Your task to perform on an android device: open chrome and create a bookmark for the current page Image 0: 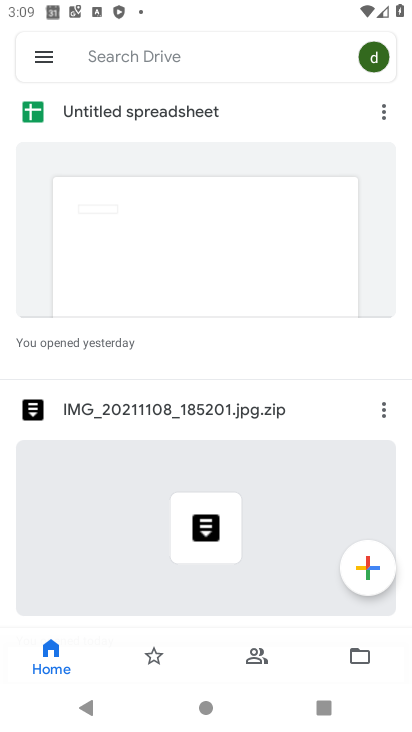
Step 0: press home button
Your task to perform on an android device: open chrome and create a bookmark for the current page Image 1: 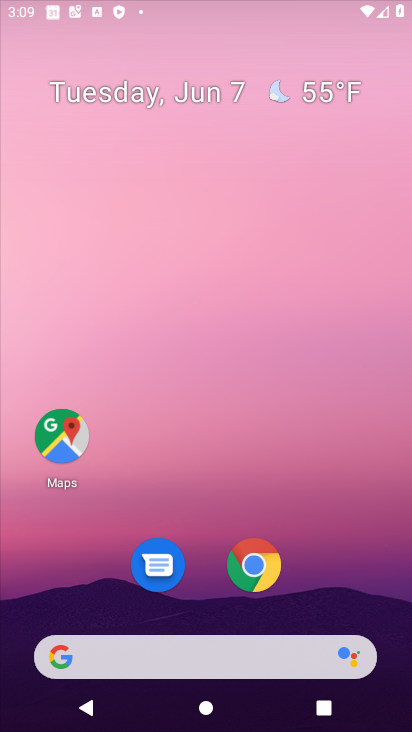
Step 1: drag from (285, 645) to (313, 147)
Your task to perform on an android device: open chrome and create a bookmark for the current page Image 2: 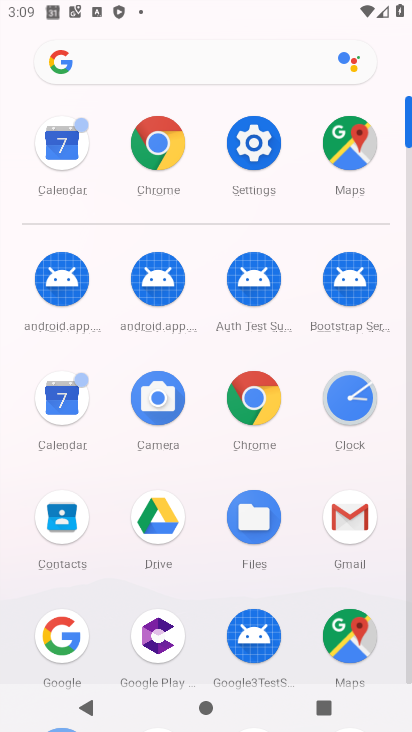
Step 2: click (248, 389)
Your task to perform on an android device: open chrome and create a bookmark for the current page Image 3: 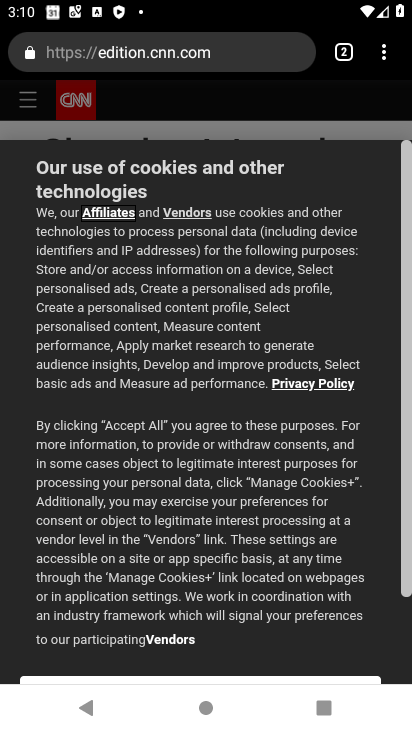
Step 3: task complete